Your task to perform on an android device: make emails show in primary in the gmail app Image 0: 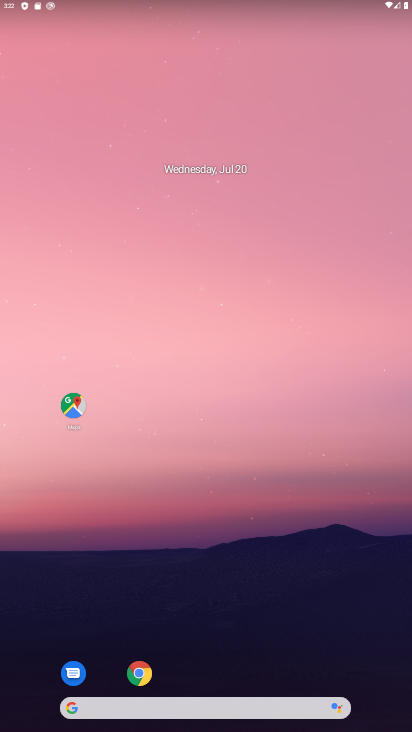
Step 0: drag from (290, 610) to (252, 283)
Your task to perform on an android device: make emails show in primary in the gmail app Image 1: 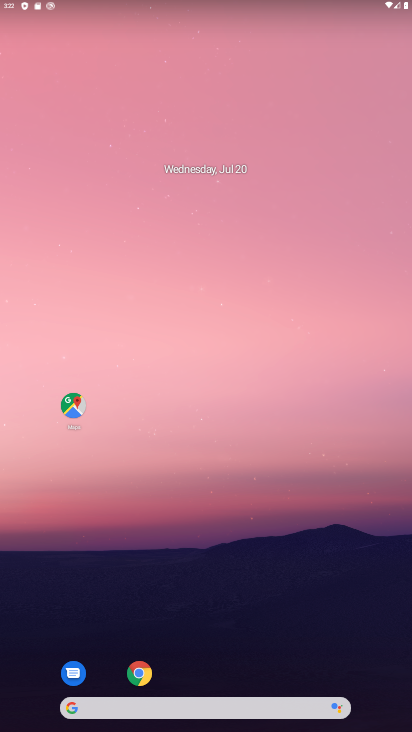
Step 1: drag from (208, 607) to (181, 161)
Your task to perform on an android device: make emails show in primary in the gmail app Image 2: 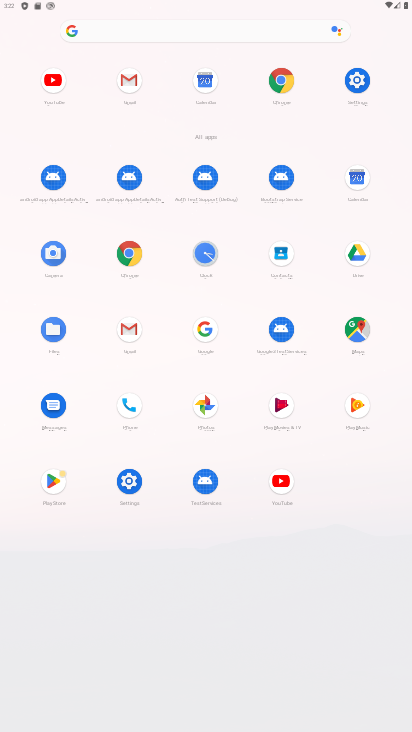
Step 2: click (130, 325)
Your task to perform on an android device: make emails show in primary in the gmail app Image 3: 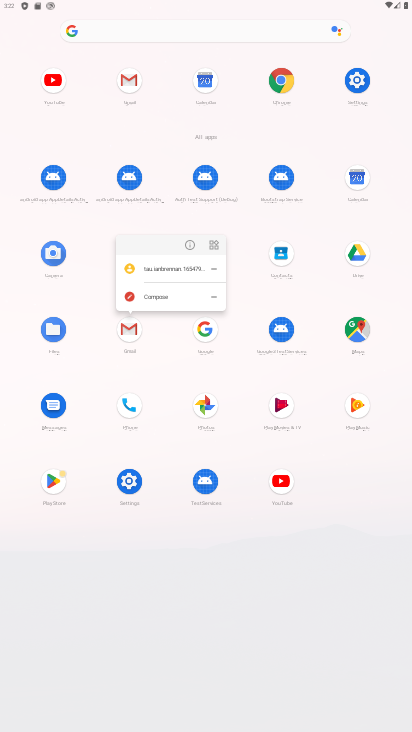
Step 3: task complete